Your task to perform on an android device: turn on improve location accuracy Image 0: 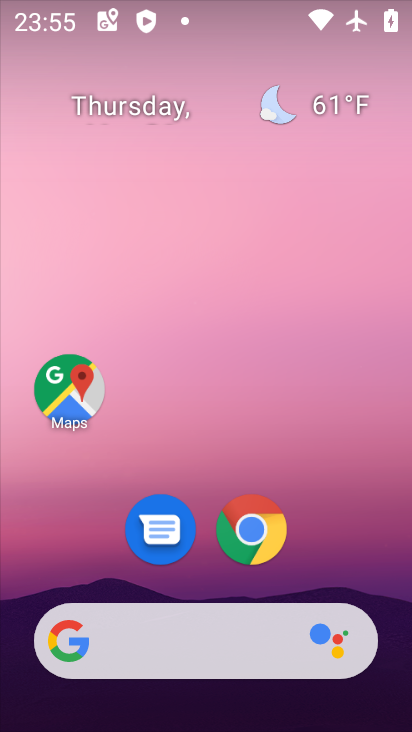
Step 0: drag from (363, 560) to (356, 185)
Your task to perform on an android device: turn on improve location accuracy Image 1: 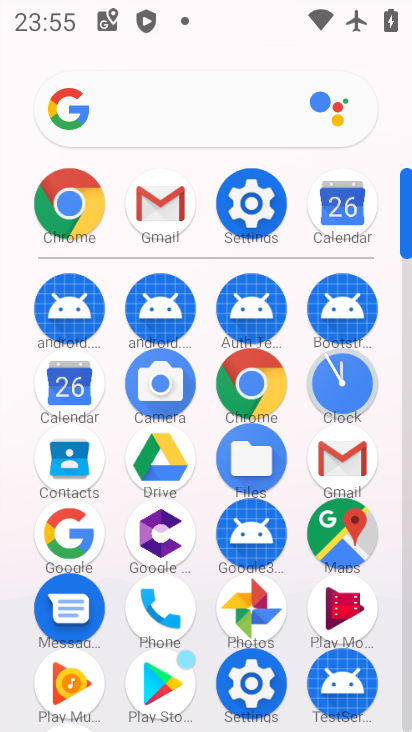
Step 1: click (237, 228)
Your task to perform on an android device: turn on improve location accuracy Image 2: 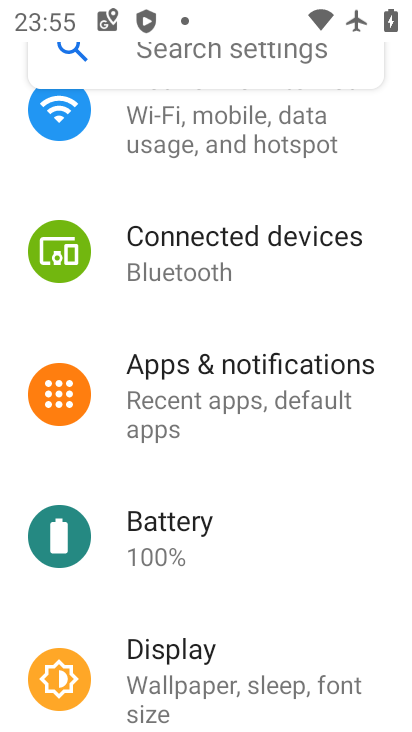
Step 2: drag from (175, 608) to (210, 219)
Your task to perform on an android device: turn on improve location accuracy Image 3: 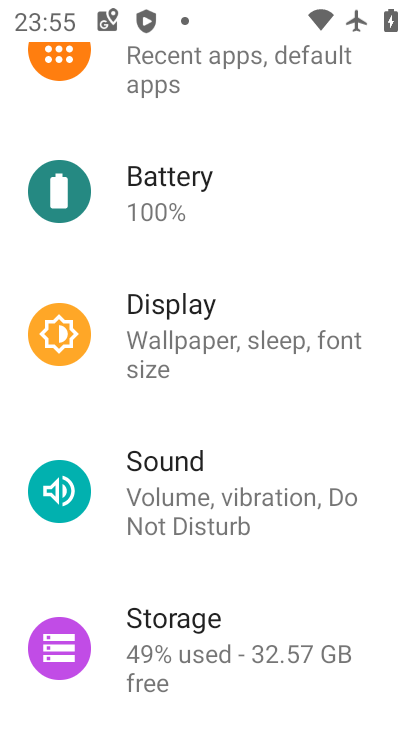
Step 3: drag from (244, 550) to (271, 279)
Your task to perform on an android device: turn on improve location accuracy Image 4: 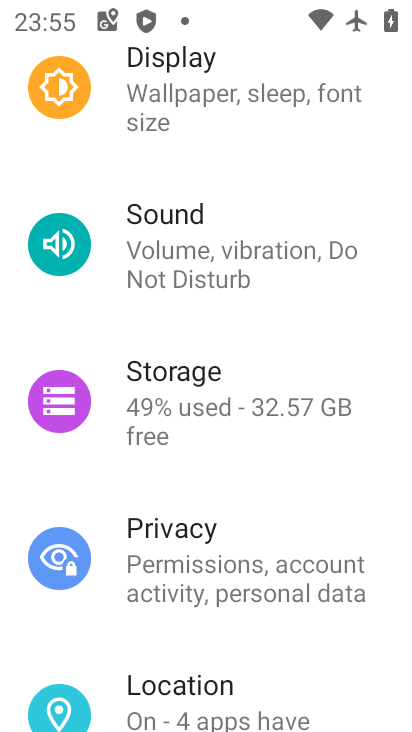
Step 4: click (179, 695)
Your task to perform on an android device: turn on improve location accuracy Image 5: 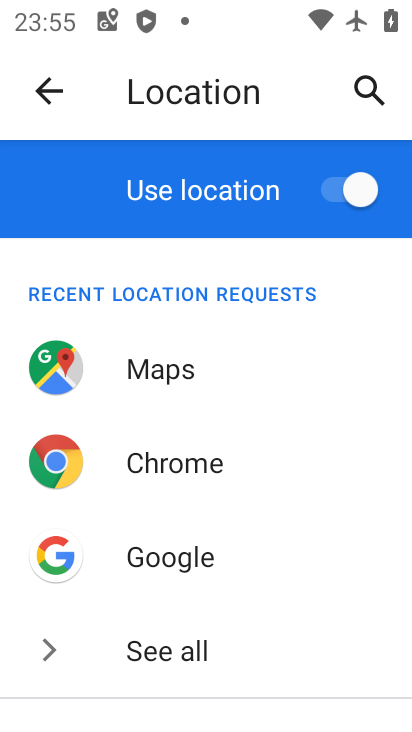
Step 5: drag from (242, 678) to (241, 223)
Your task to perform on an android device: turn on improve location accuracy Image 6: 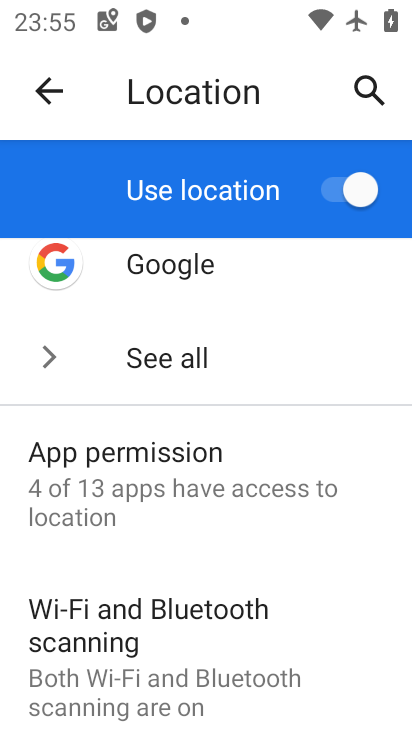
Step 6: drag from (238, 610) to (277, 373)
Your task to perform on an android device: turn on improve location accuracy Image 7: 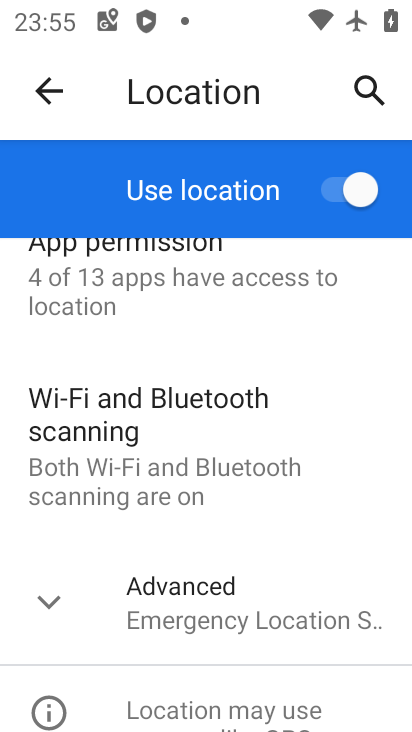
Step 7: click (361, 613)
Your task to perform on an android device: turn on improve location accuracy Image 8: 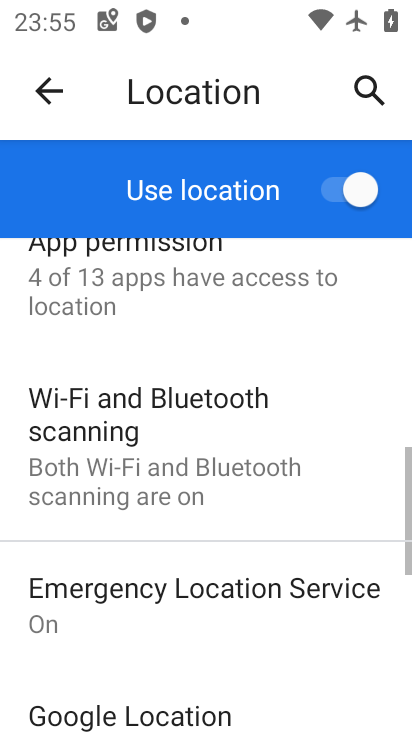
Step 8: drag from (259, 600) to (276, 290)
Your task to perform on an android device: turn on improve location accuracy Image 9: 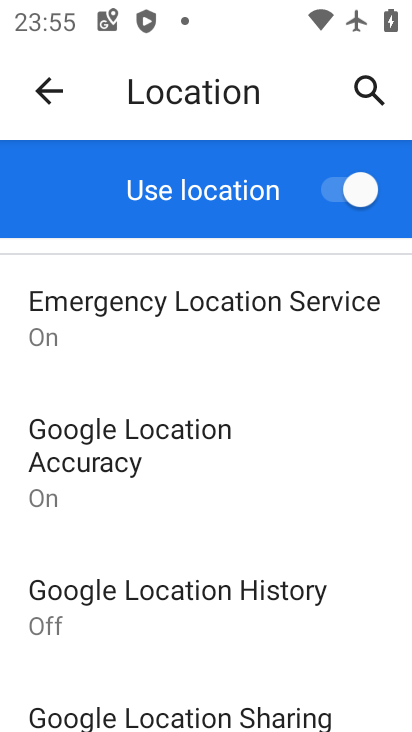
Step 9: drag from (222, 677) to (208, 269)
Your task to perform on an android device: turn on improve location accuracy Image 10: 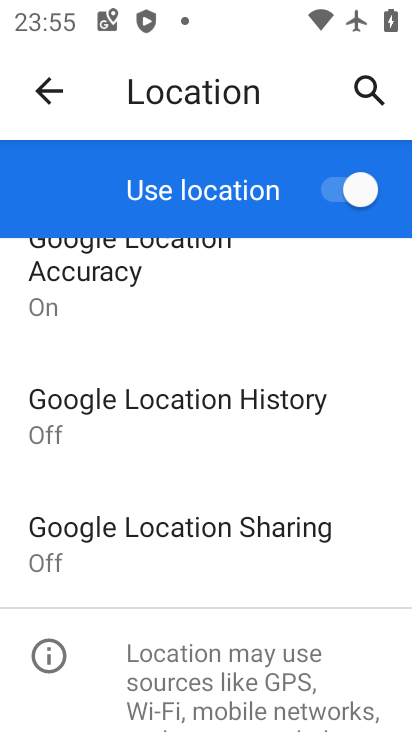
Step 10: click (169, 309)
Your task to perform on an android device: turn on improve location accuracy Image 11: 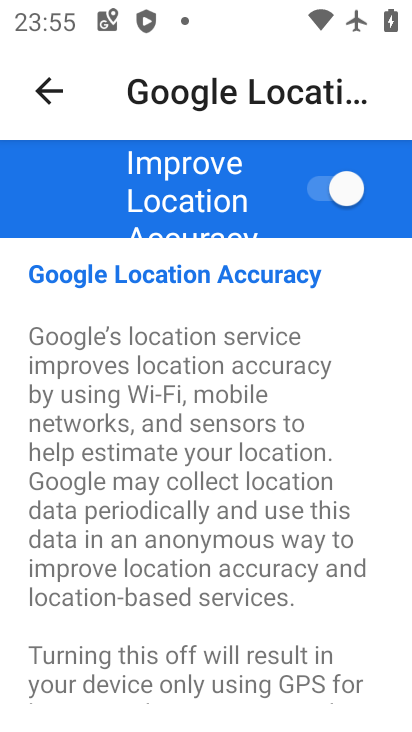
Step 11: click (345, 175)
Your task to perform on an android device: turn on improve location accuracy Image 12: 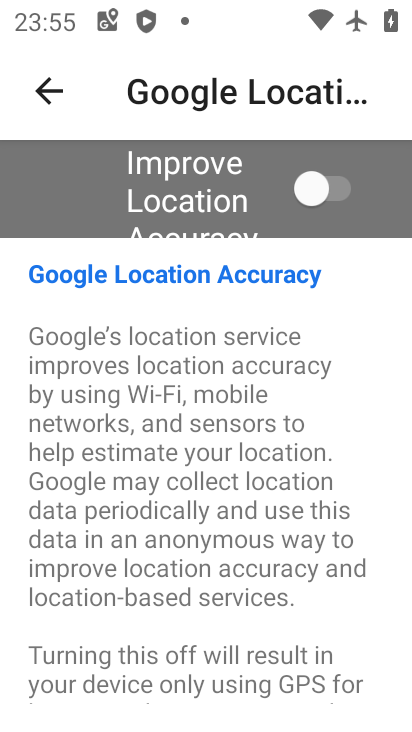
Step 12: task complete